Your task to perform on an android device: Open calendar and show me the fourth week of next month Image 0: 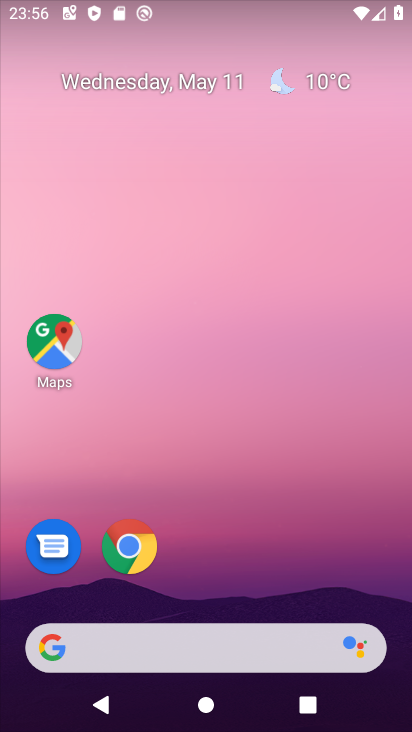
Step 0: drag from (173, 578) to (183, 205)
Your task to perform on an android device: Open calendar and show me the fourth week of next month Image 1: 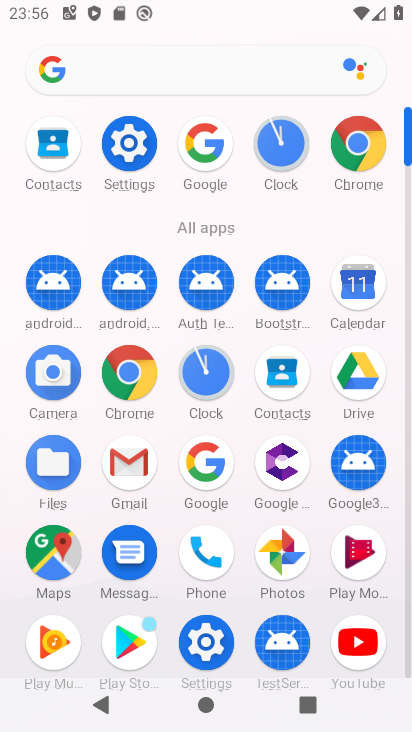
Step 1: click (355, 295)
Your task to perform on an android device: Open calendar and show me the fourth week of next month Image 2: 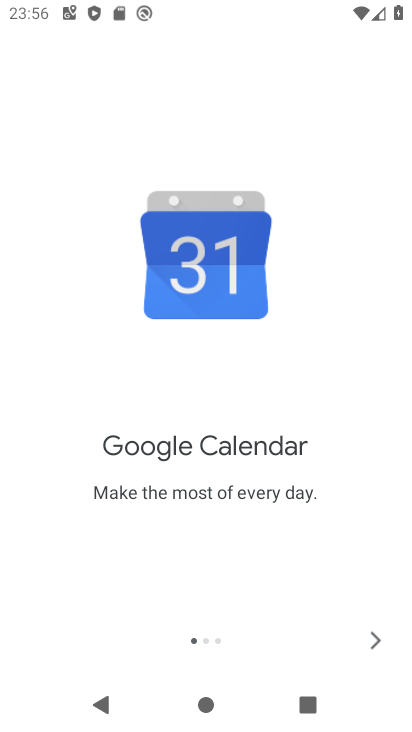
Step 2: click (379, 637)
Your task to perform on an android device: Open calendar and show me the fourth week of next month Image 3: 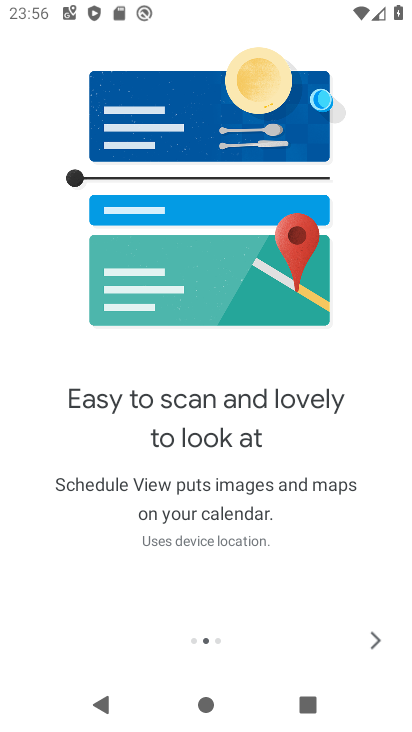
Step 3: click (379, 643)
Your task to perform on an android device: Open calendar and show me the fourth week of next month Image 4: 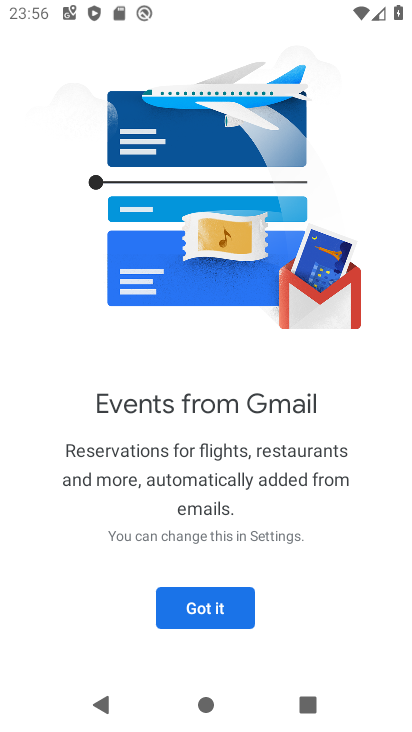
Step 4: click (378, 642)
Your task to perform on an android device: Open calendar and show me the fourth week of next month Image 5: 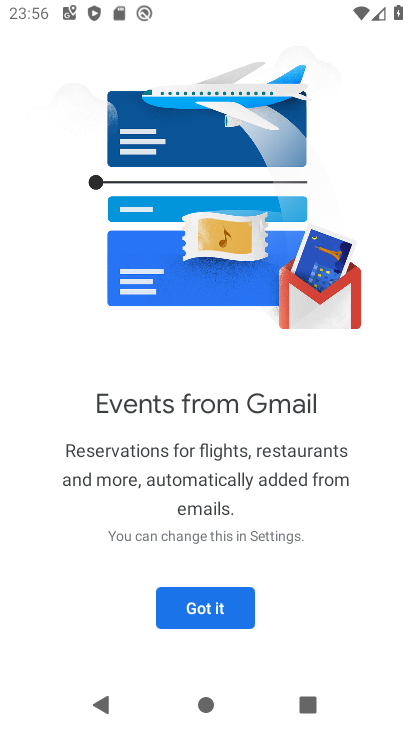
Step 5: click (214, 611)
Your task to perform on an android device: Open calendar and show me the fourth week of next month Image 6: 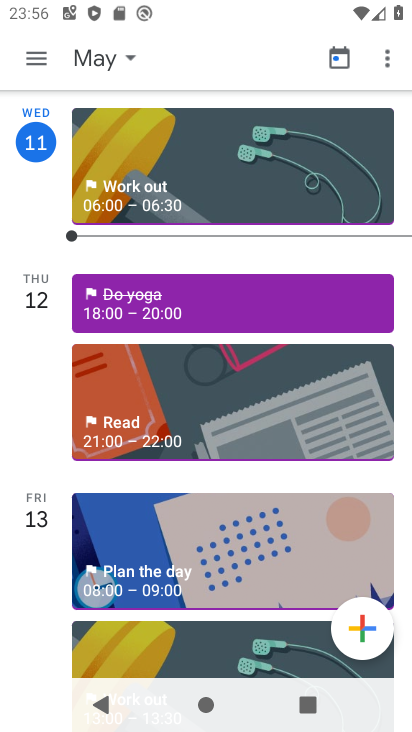
Step 6: click (120, 56)
Your task to perform on an android device: Open calendar and show me the fourth week of next month Image 7: 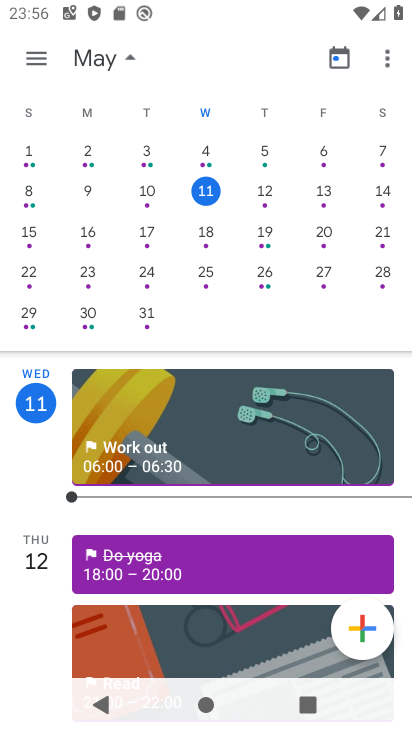
Step 7: drag from (394, 219) to (123, 219)
Your task to perform on an android device: Open calendar and show me the fourth week of next month Image 8: 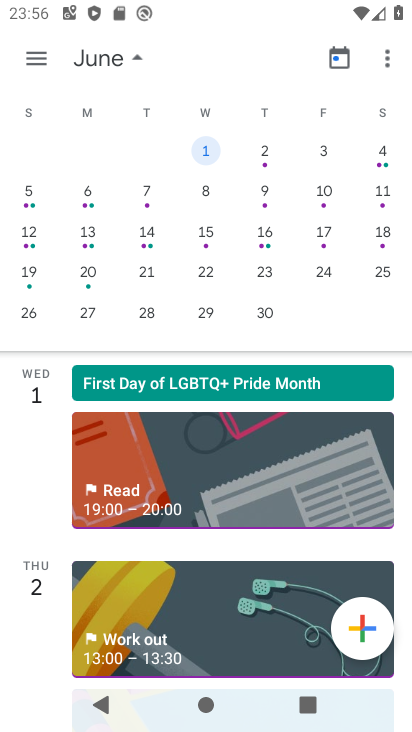
Step 8: click (211, 274)
Your task to perform on an android device: Open calendar and show me the fourth week of next month Image 9: 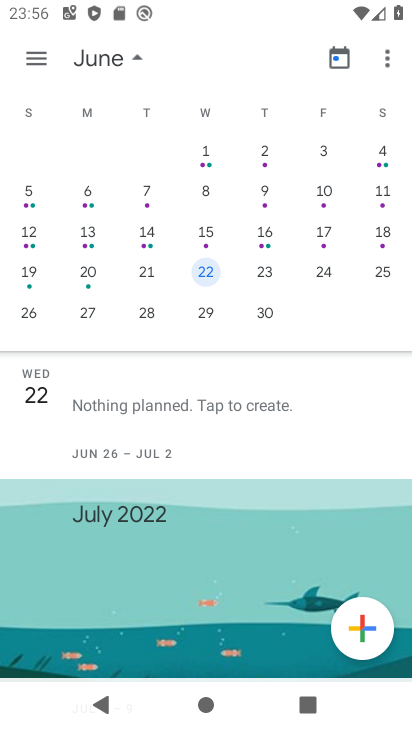
Step 9: click (45, 55)
Your task to perform on an android device: Open calendar and show me the fourth week of next month Image 10: 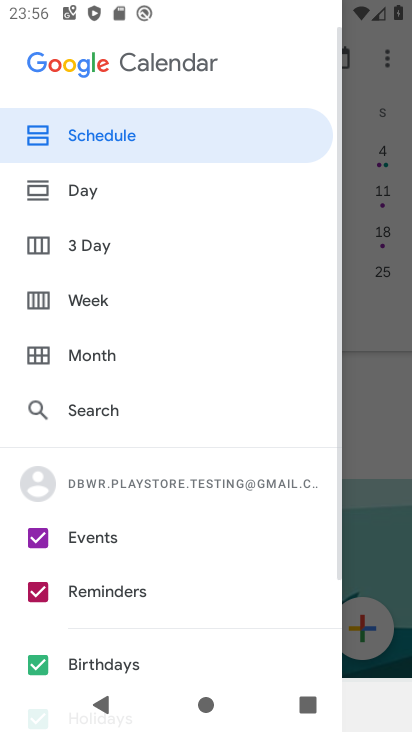
Step 10: click (111, 303)
Your task to perform on an android device: Open calendar and show me the fourth week of next month Image 11: 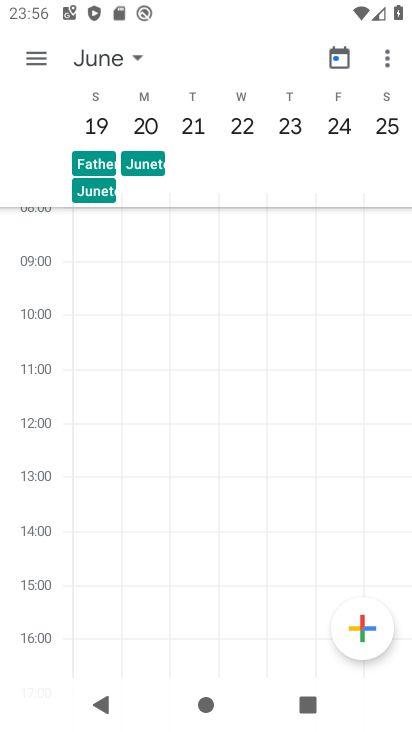
Step 11: task complete